Your task to perform on an android device: What's the weather like in Hong Kong? Image 0: 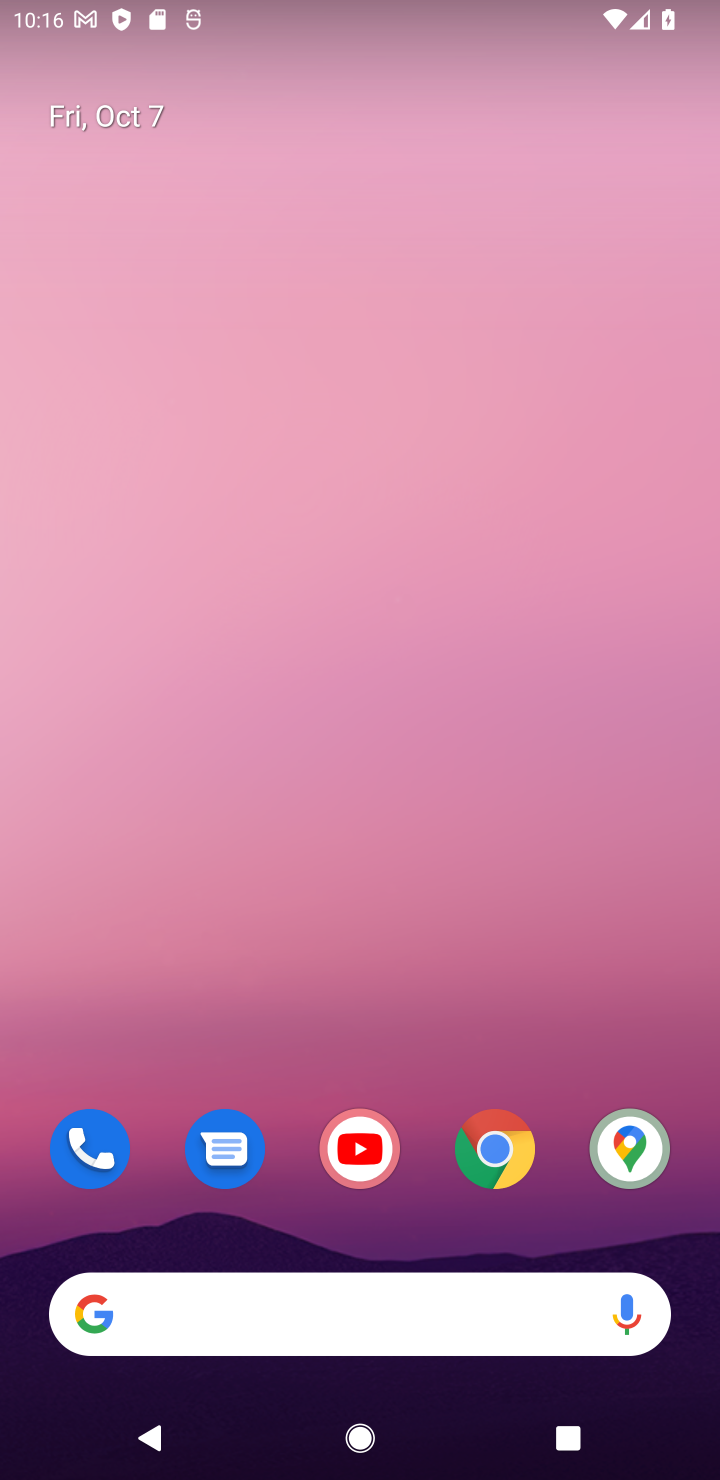
Step 0: click (328, 1285)
Your task to perform on an android device: What's the weather like in Hong Kong? Image 1: 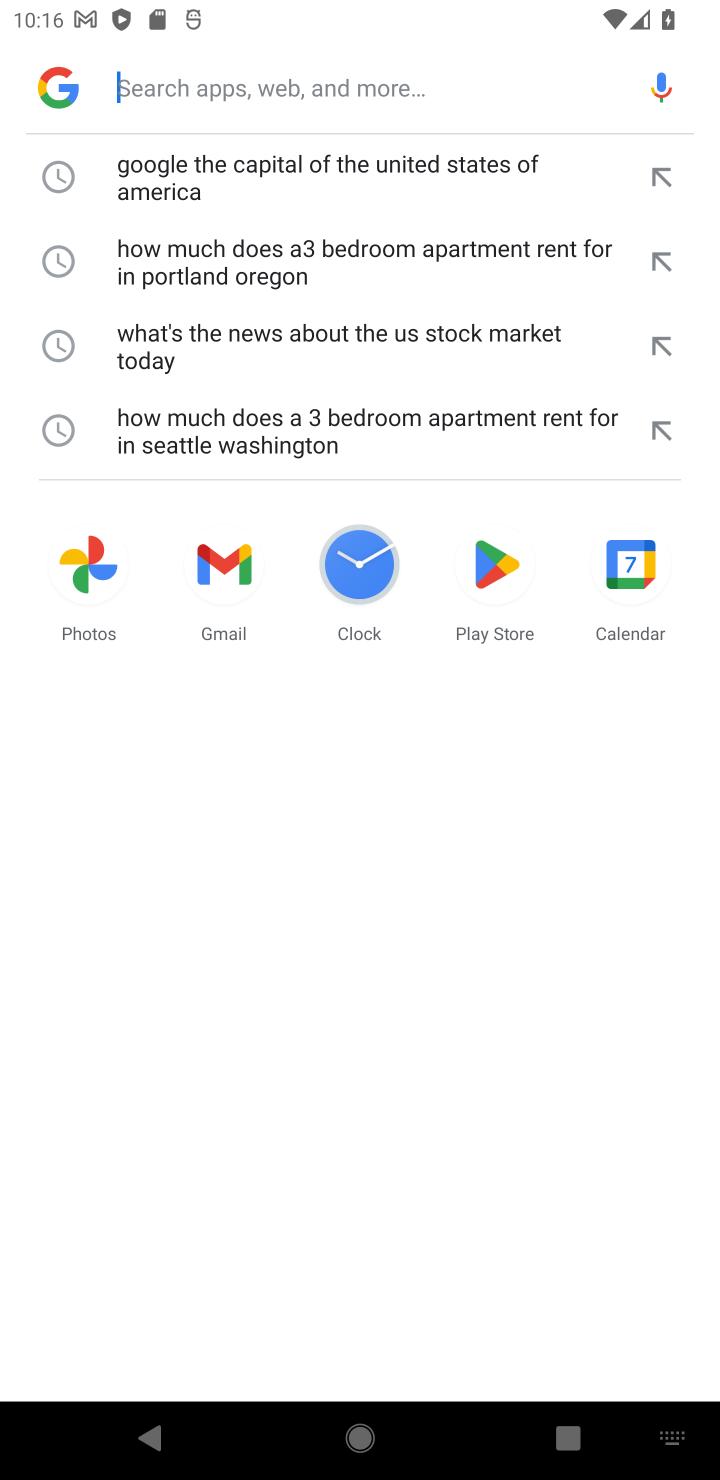
Step 1: type "What's the weather like in Hong Kong?"
Your task to perform on an android device: What's the weather like in Hong Kong? Image 2: 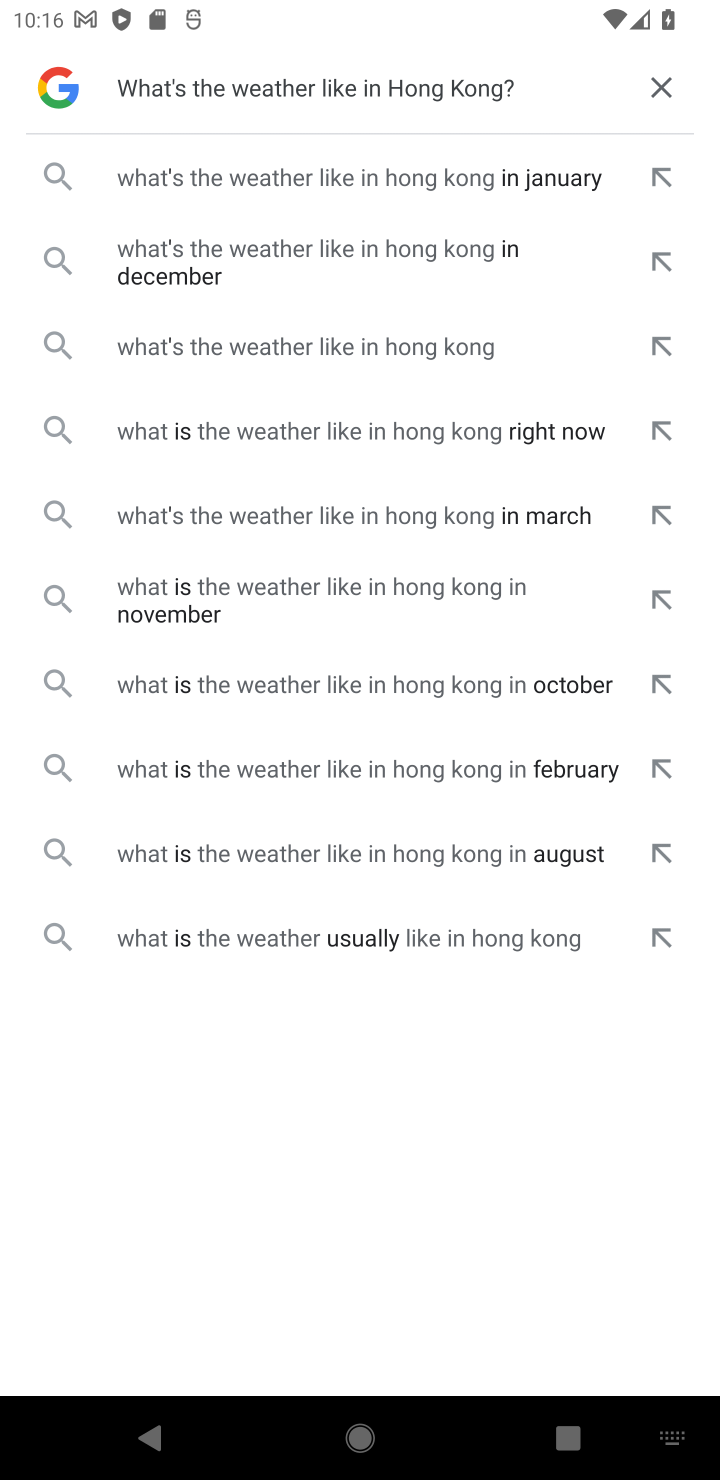
Step 2: click (431, 172)
Your task to perform on an android device: What's the weather like in Hong Kong? Image 3: 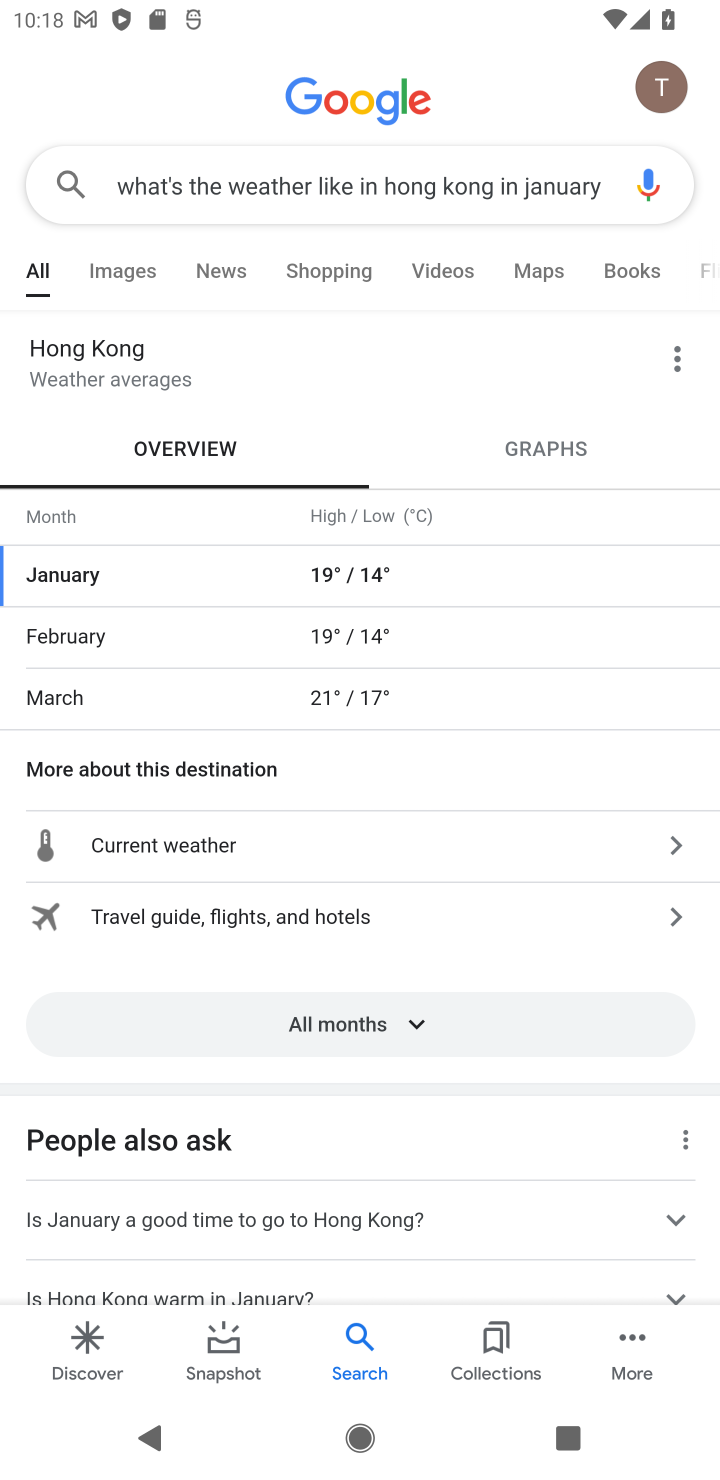
Step 3: task complete